Your task to perform on an android device: search for starred emails in the gmail app Image 0: 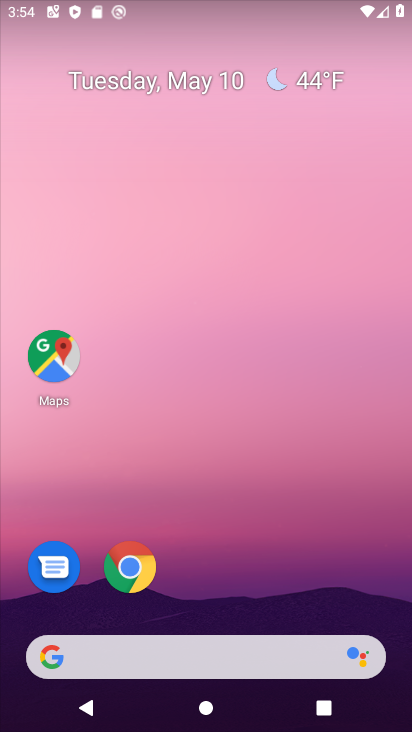
Step 0: drag from (250, 570) to (218, 33)
Your task to perform on an android device: search for starred emails in the gmail app Image 1: 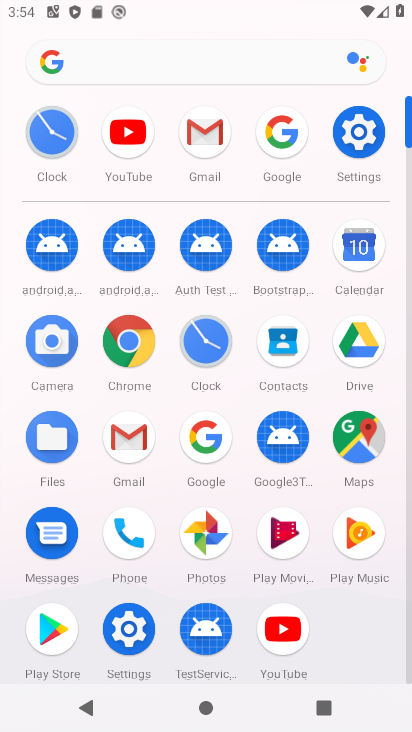
Step 1: click (202, 131)
Your task to perform on an android device: search for starred emails in the gmail app Image 2: 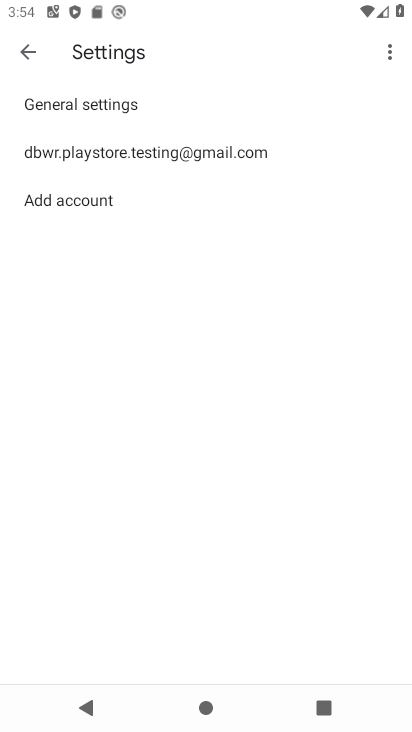
Step 2: press back button
Your task to perform on an android device: search for starred emails in the gmail app Image 3: 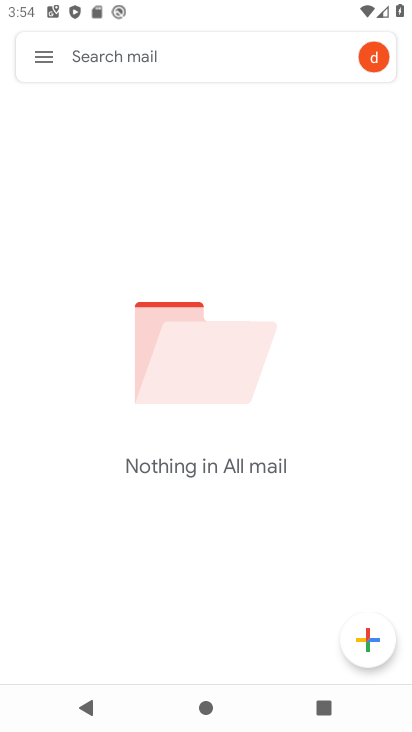
Step 3: click (145, 64)
Your task to perform on an android device: search for starred emails in the gmail app Image 4: 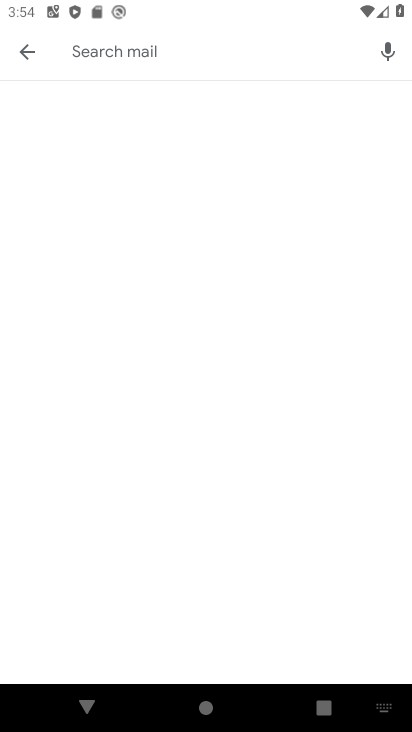
Step 4: type "starred"
Your task to perform on an android device: search for starred emails in the gmail app Image 5: 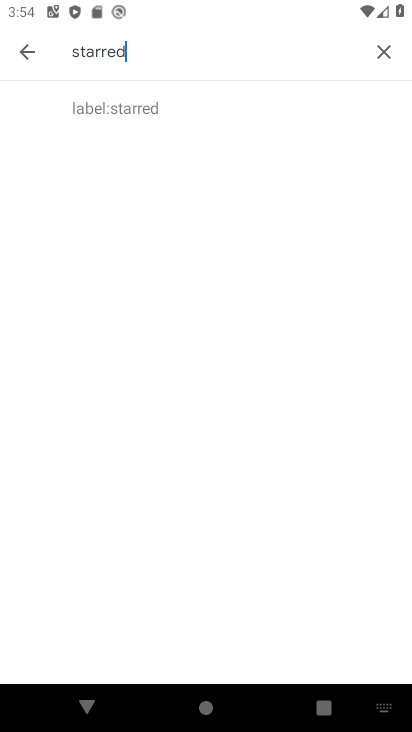
Step 5: click (125, 112)
Your task to perform on an android device: search for starred emails in the gmail app Image 6: 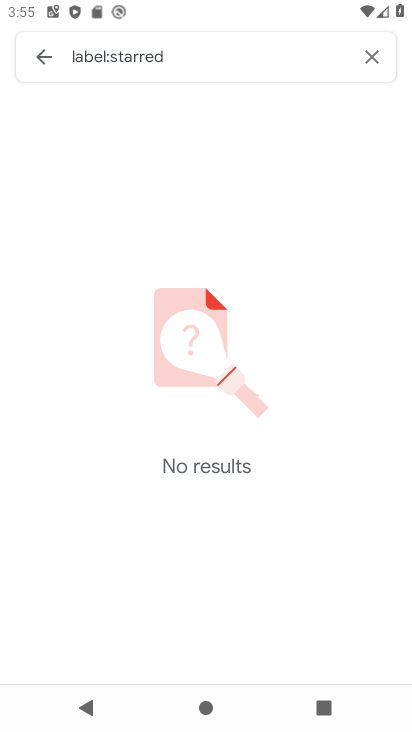
Step 6: task complete